Your task to perform on an android device: check google app version Image 0: 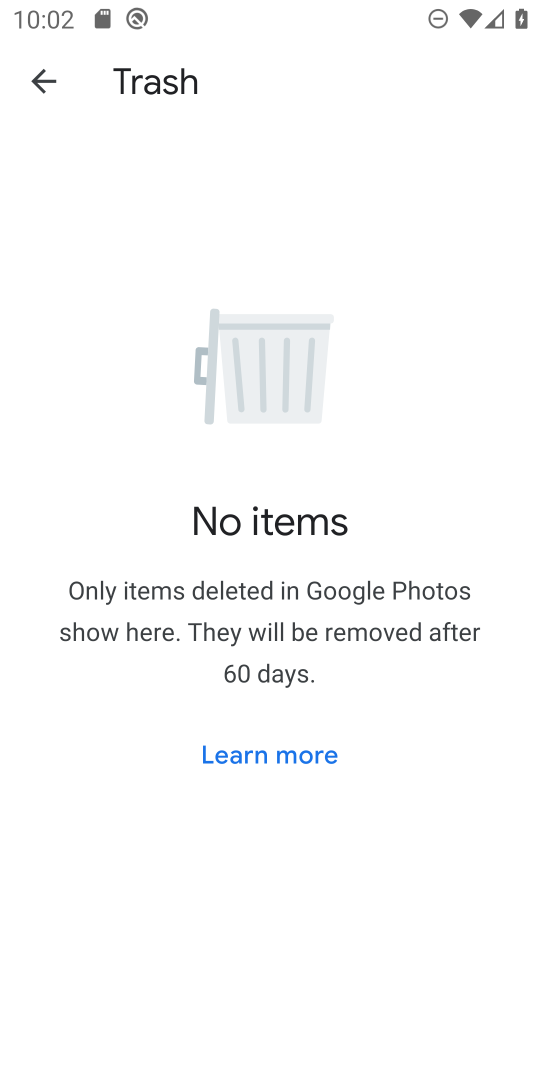
Step 0: press home button
Your task to perform on an android device: check google app version Image 1: 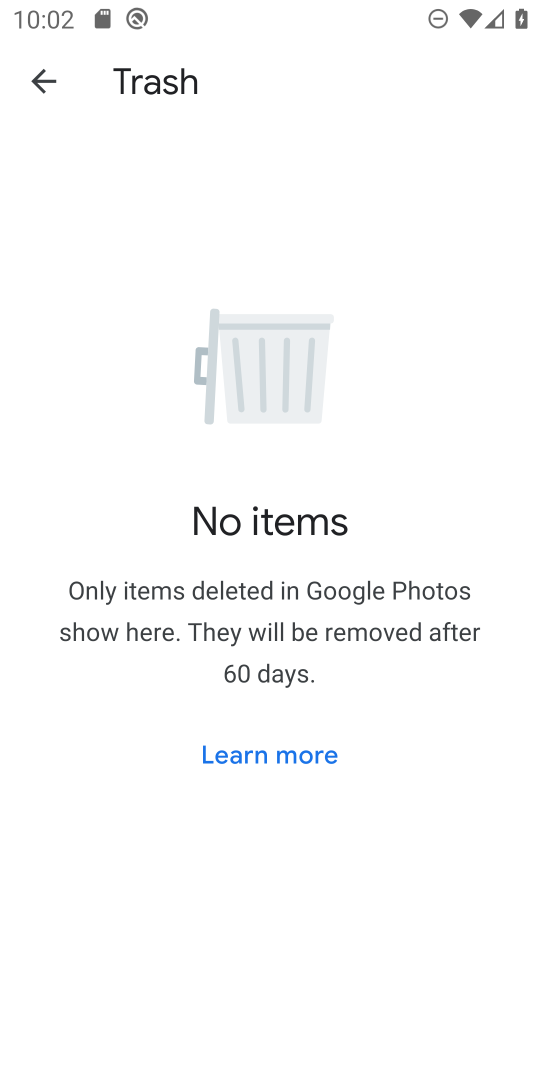
Step 1: press home button
Your task to perform on an android device: check google app version Image 2: 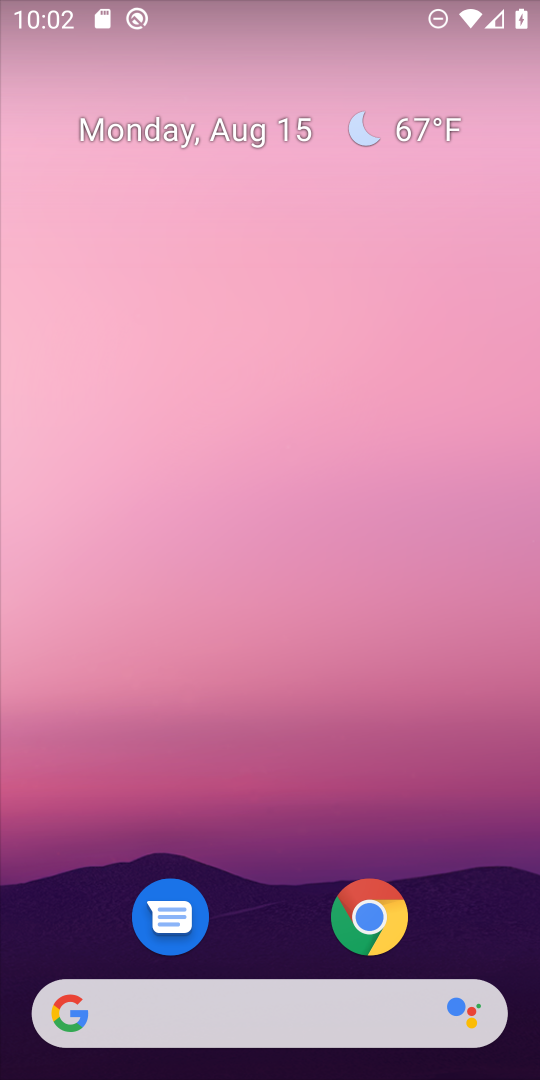
Step 2: click (266, 1014)
Your task to perform on an android device: check google app version Image 3: 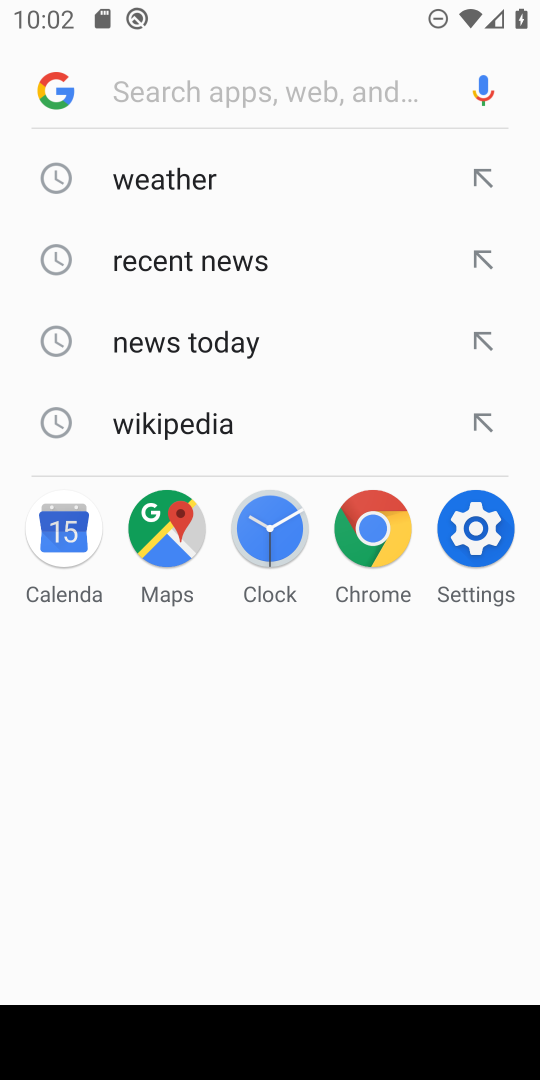
Step 3: click (65, 87)
Your task to perform on an android device: check google app version Image 4: 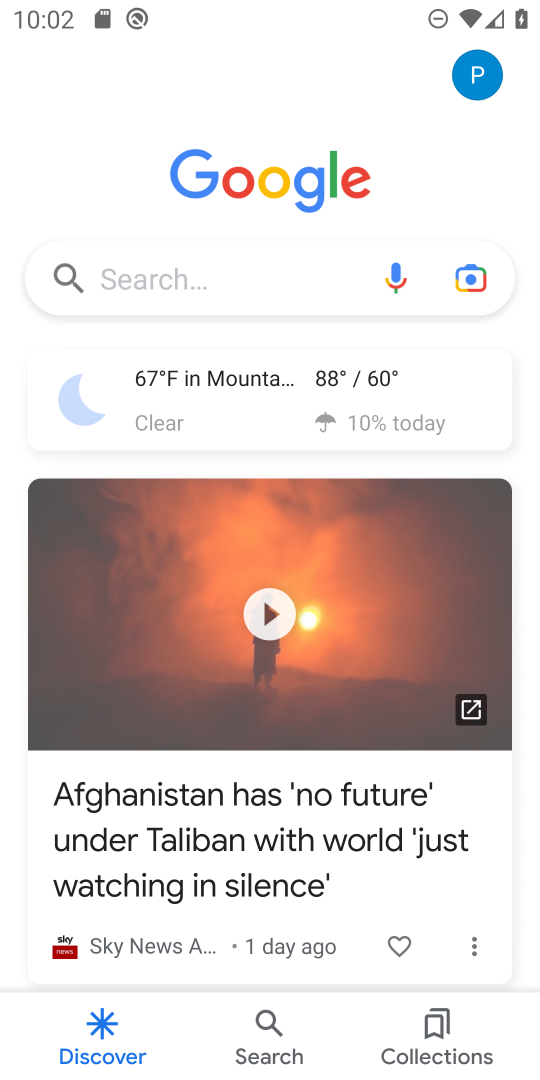
Step 4: click (481, 69)
Your task to perform on an android device: check google app version Image 5: 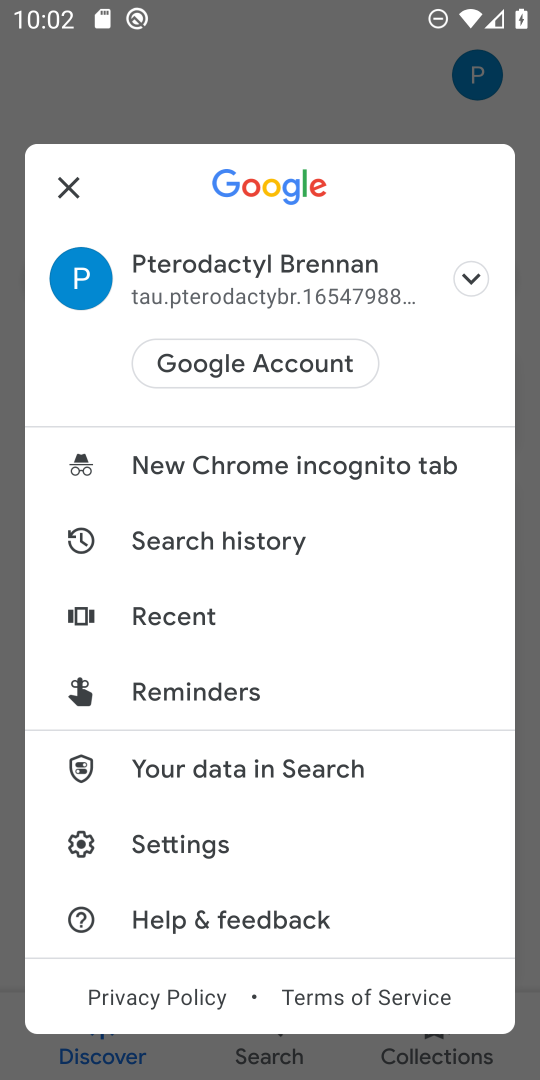
Step 5: click (197, 839)
Your task to perform on an android device: check google app version Image 6: 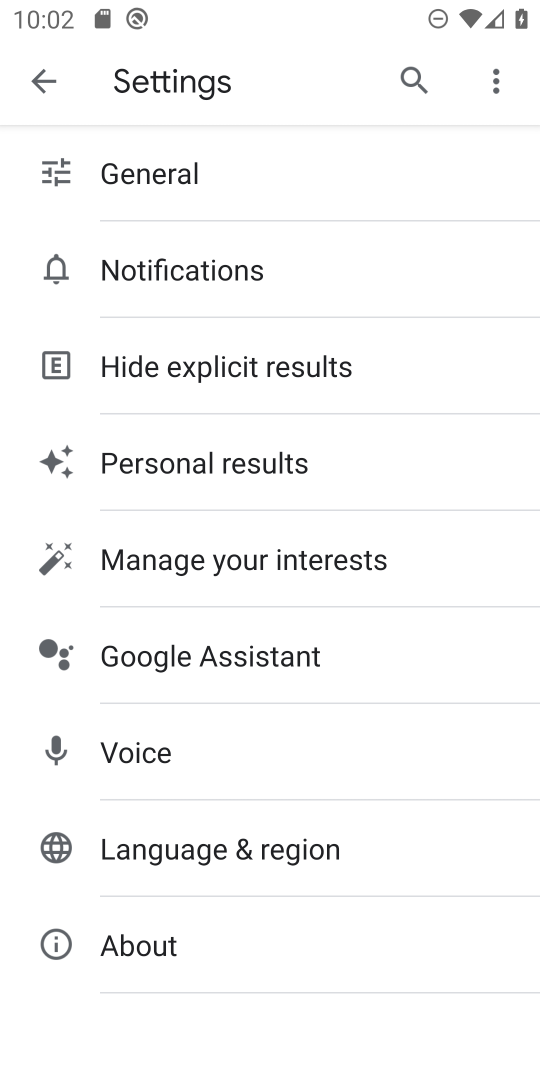
Step 6: click (109, 946)
Your task to perform on an android device: check google app version Image 7: 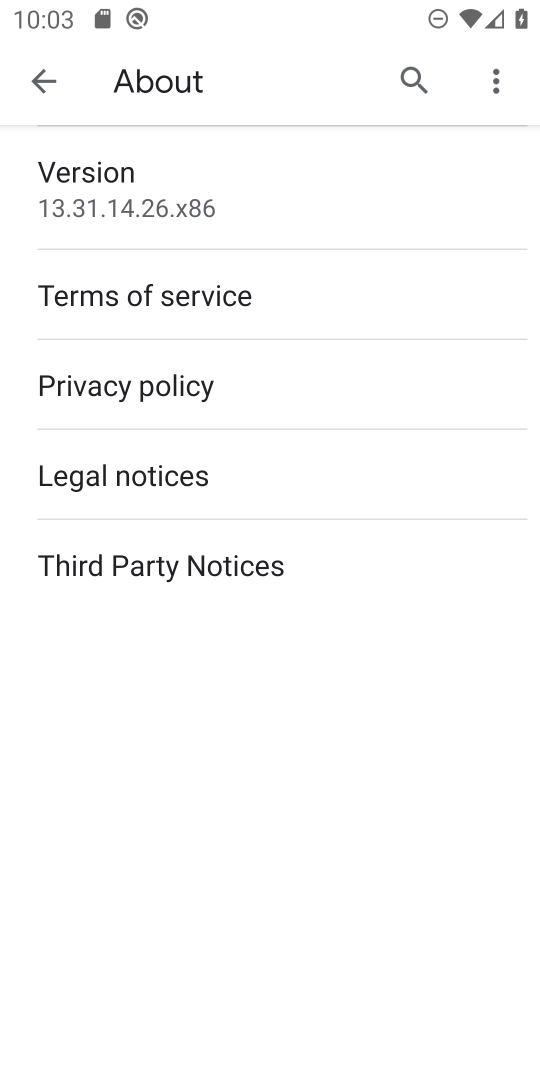
Step 7: task complete